Your task to perform on an android device: change alarm snooze length Image 0: 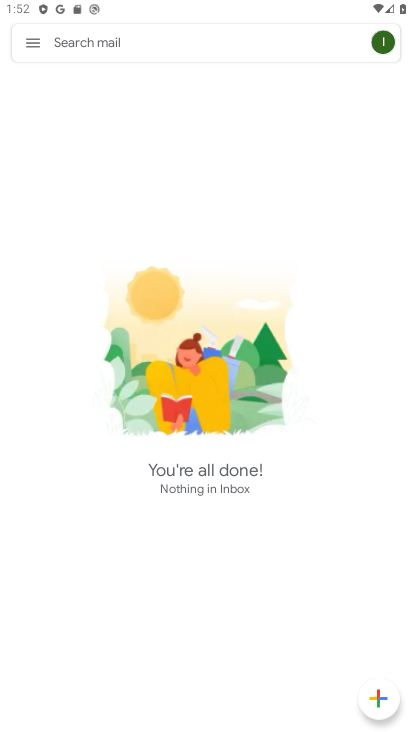
Step 0: press home button
Your task to perform on an android device: change alarm snooze length Image 1: 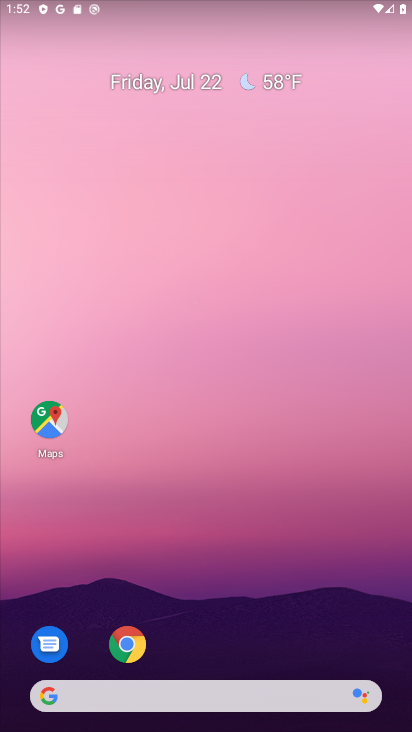
Step 1: drag from (238, 657) to (16, 238)
Your task to perform on an android device: change alarm snooze length Image 2: 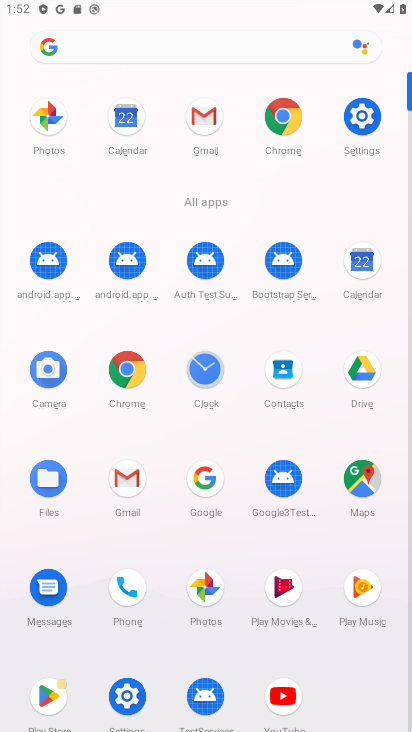
Step 2: click (216, 380)
Your task to perform on an android device: change alarm snooze length Image 3: 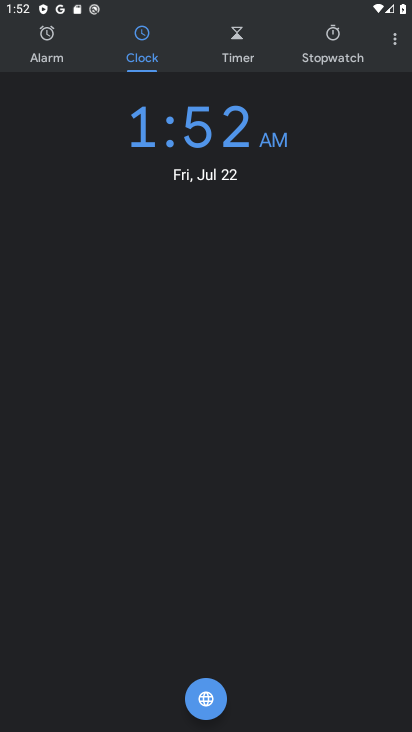
Step 3: click (401, 43)
Your task to perform on an android device: change alarm snooze length Image 4: 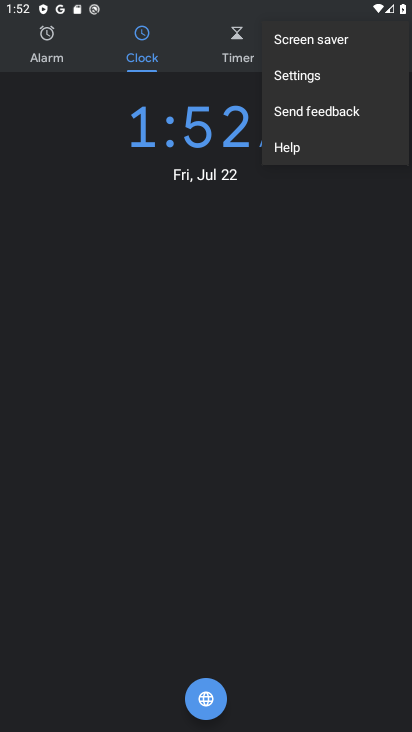
Step 4: click (356, 75)
Your task to perform on an android device: change alarm snooze length Image 5: 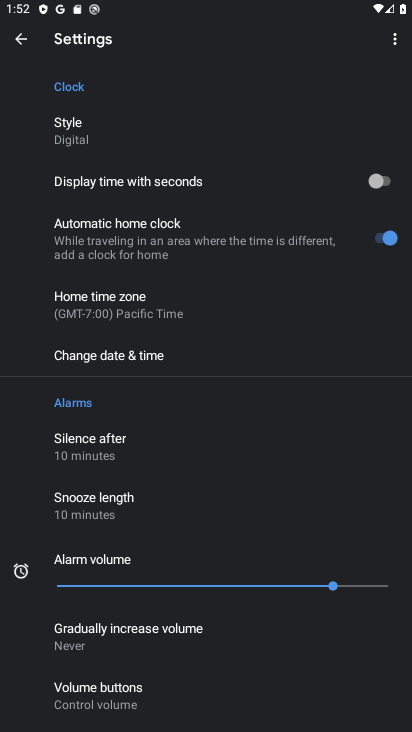
Step 5: click (171, 513)
Your task to perform on an android device: change alarm snooze length Image 6: 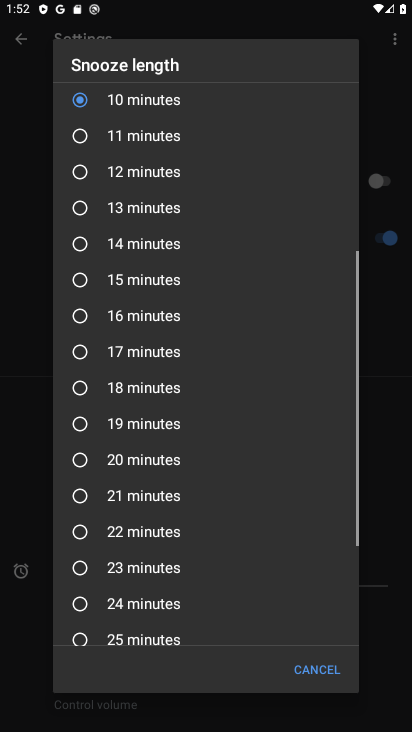
Step 6: click (168, 513)
Your task to perform on an android device: change alarm snooze length Image 7: 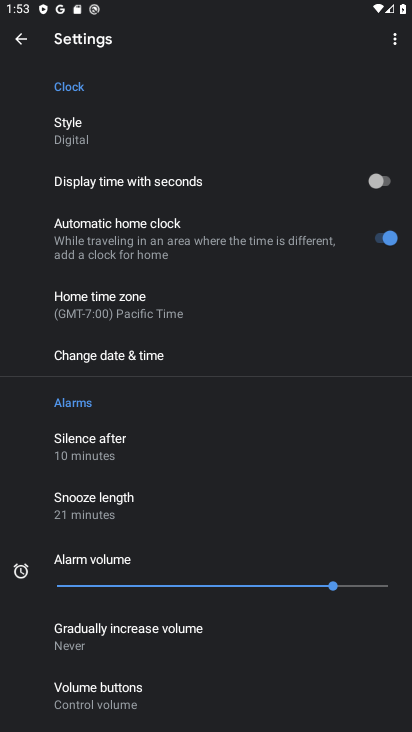
Step 7: task complete